Your task to perform on an android device: remove spam from my inbox in the gmail app Image 0: 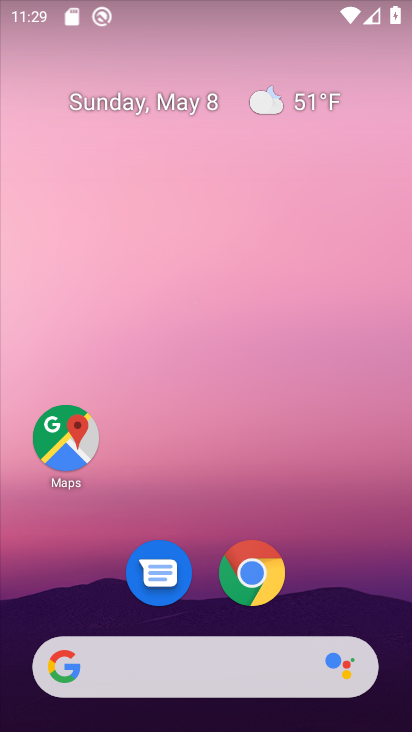
Step 0: drag from (214, 633) to (230, 260)
Your task to perform on an android device: remove spam from my inbox in the gmail app Image 1: 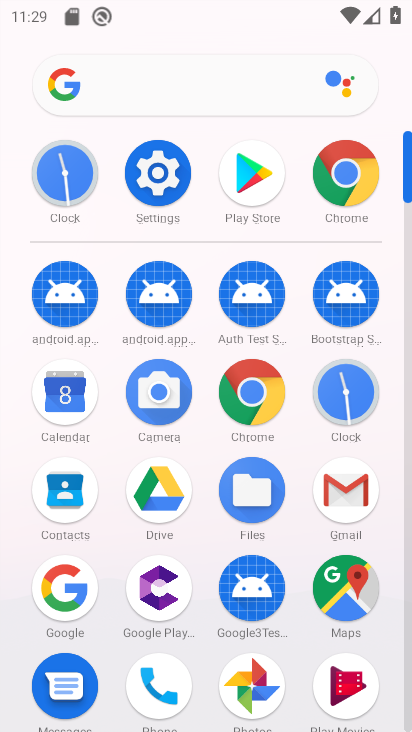
Step 1: click (344, 487)
Your task to perform on an android device: remove spam from my inbox in the gmail app Image 2: 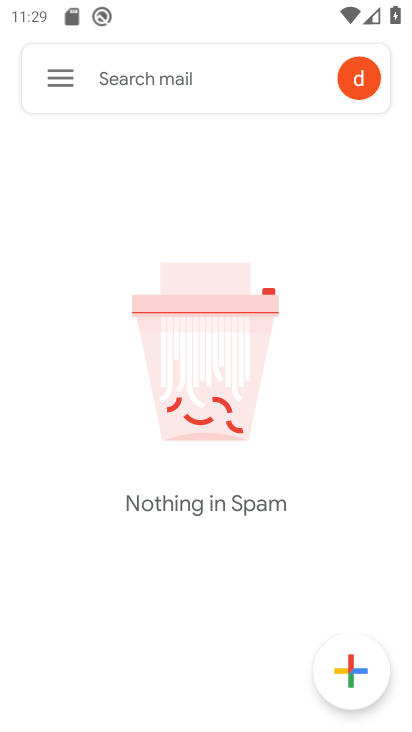
Step 2: click (57, 82)
Your task to perform on an android device: remove spam from my inbox in the gmail app Image 3: 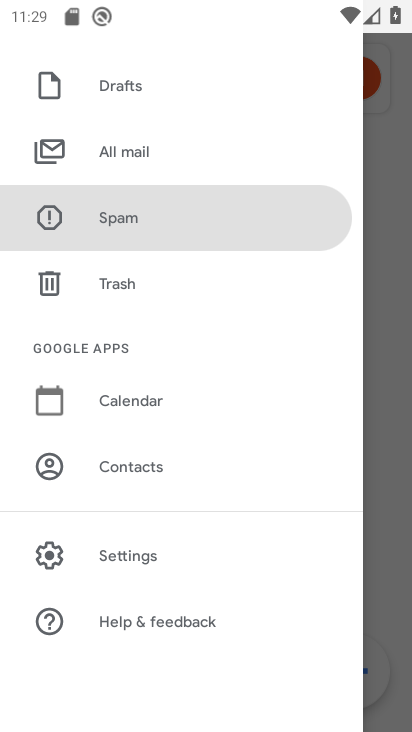
Step 3: click (107, 217)
Your task to perform on an android device: remove spam from my inbox in the gmail app Image 4: 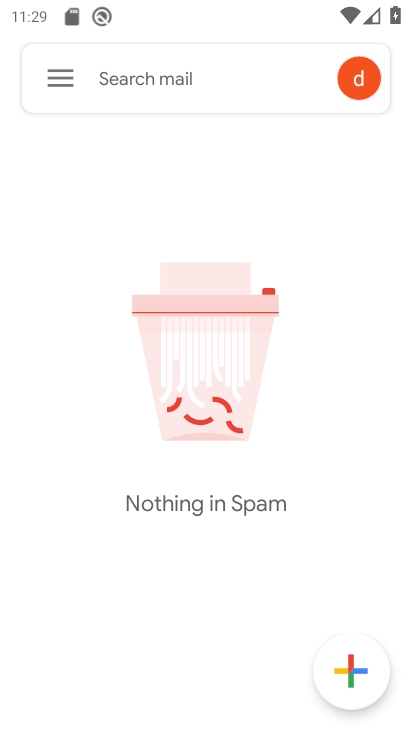
Step 4: task complete